Your task to perform on an android device: What's the weather going to be this weekend? Image 0: 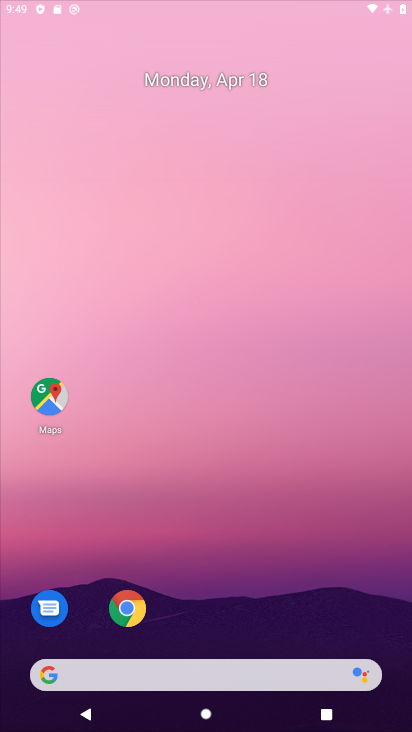
Step 0: drag from (324, 352) to (379, 154)
Your task to perform on an android device: What's the weather going to be this weekend? Image 1: 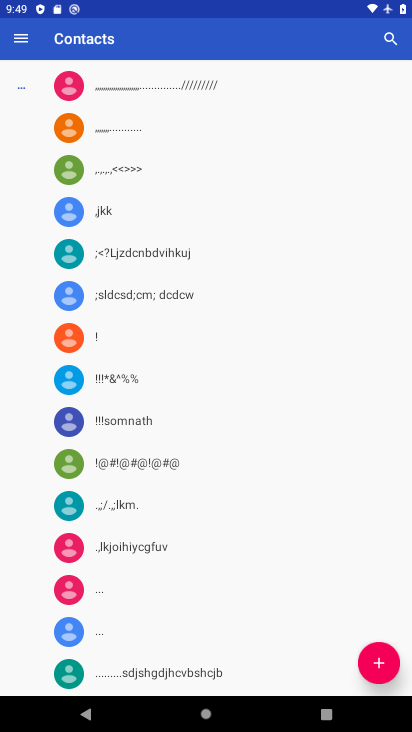
Step 1: press home button
Your task to perform on an android device: What's the weather going to be this weekend? Image 2: 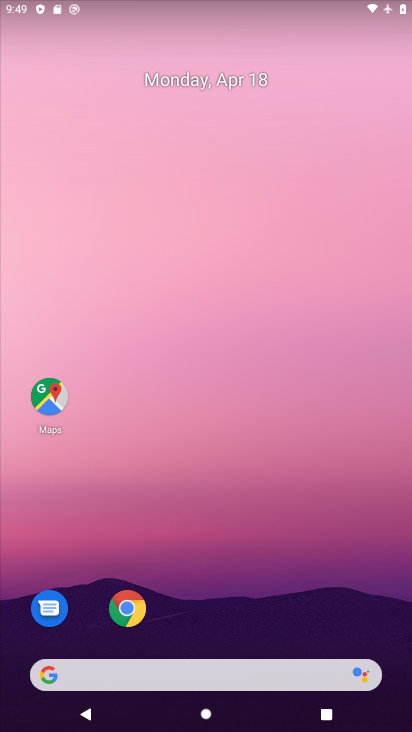
Step 2: drag from (259, 579) to (314, 116)
Your task to perform on an android device: What's the weather going to be this weekend? Image 3: 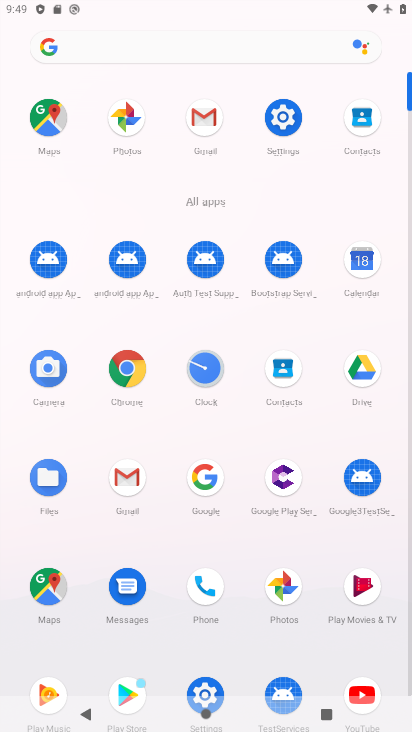
Step 3: click (119, 47)
Your task to perform on an android device: What's the weather going to be this weekend? Image 4: 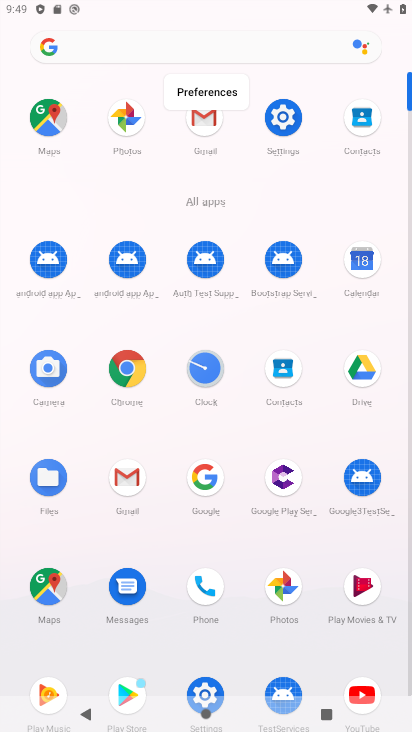
Step 4: click (193, 48)
Your task to perform on an android device: What's the weather going to be this weekend? Image 5: 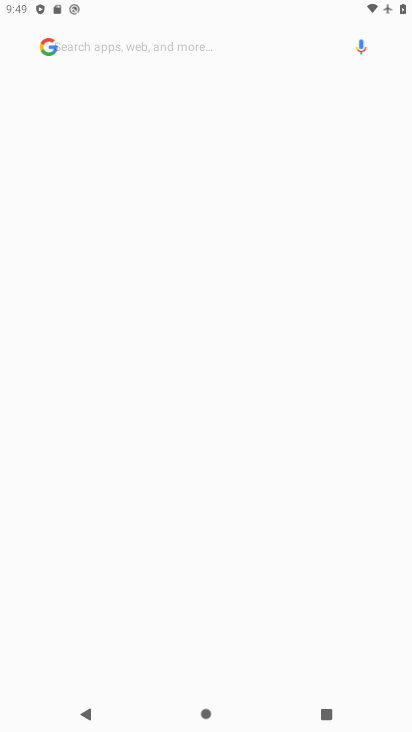
Step 5: drag from (128, 380) to (388, 344)
Your task to perform on an android device: What's the weather going to be this weekend? Image 6: 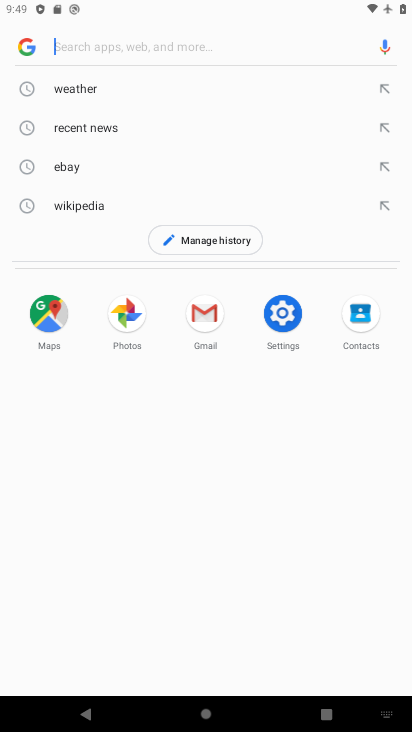
Step 6: type "weather going to be this weekend"
Your task to perform on an android device: What's the weather going to be this weekend? Image 7: 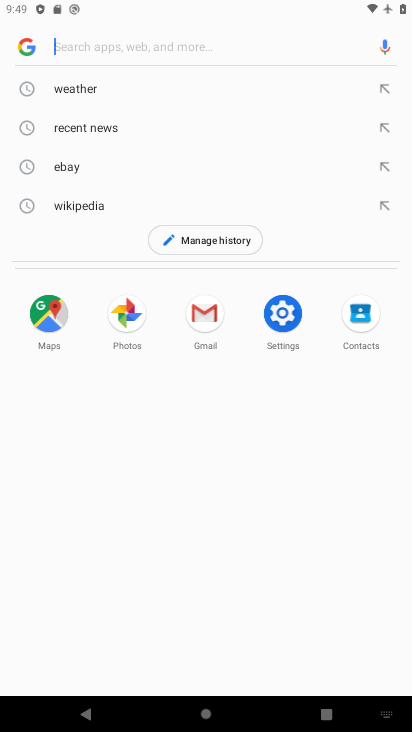
Step 7: click (323, 486)
Your task to perform on an android device: What's the weather going to be this weekend? Image 8: 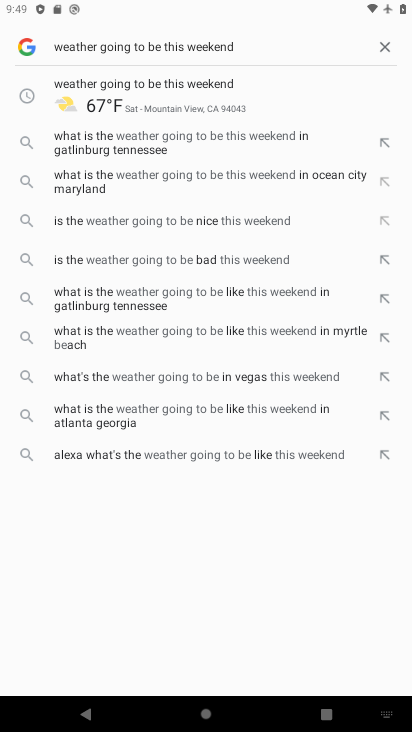
Step 8: click (175, 98)
Your task to perform on an android device: What's the weather going to be this weekend? Image 9: 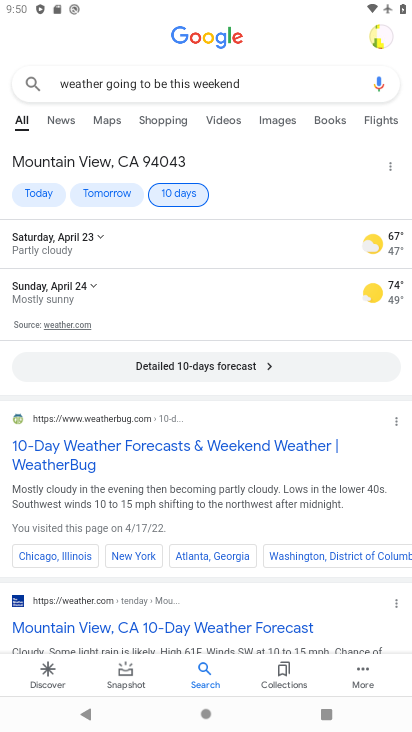
Step 9: task complete